Your task to perform on an android device: install app "Move to iOS" Image 0: 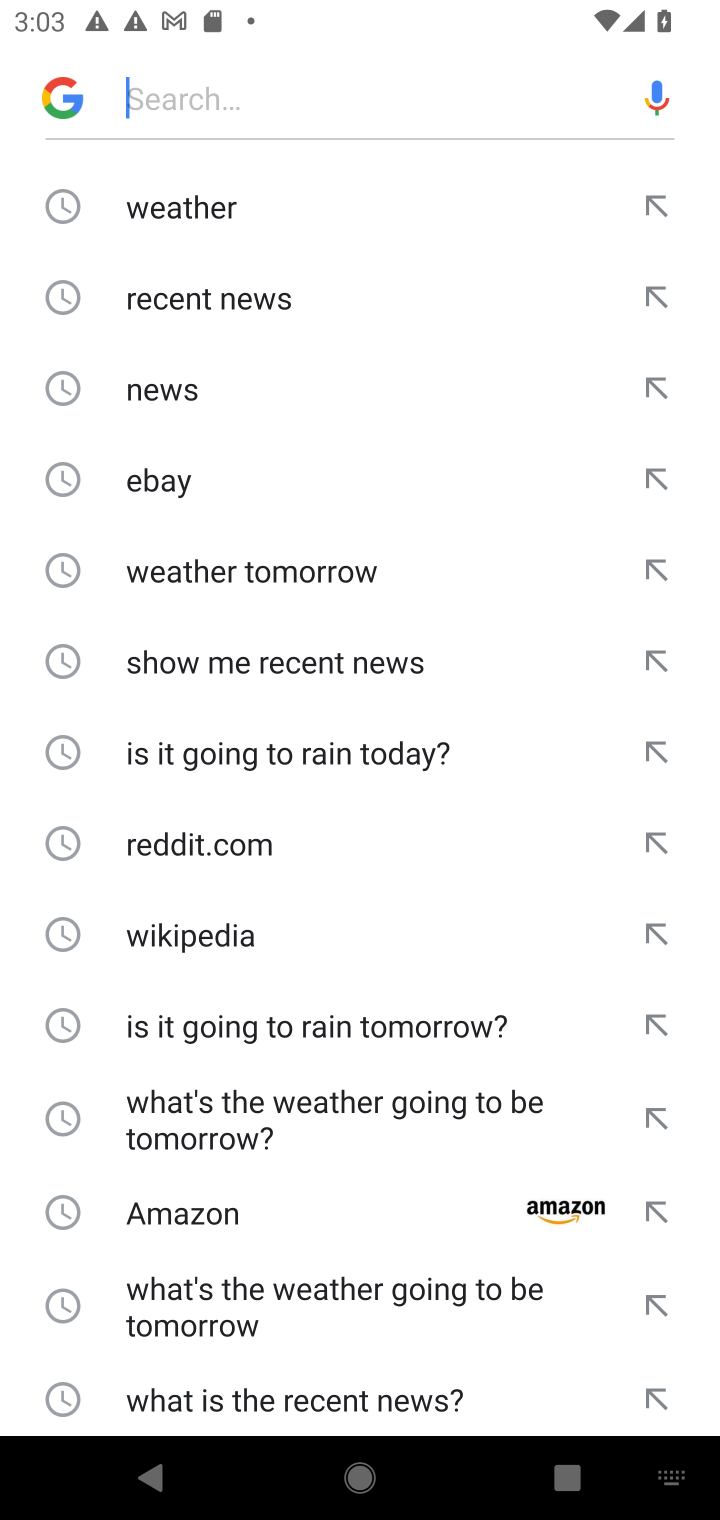
Step 0: press home button
Your task to perform on an android device: install app "Move to iOS" Image 1: 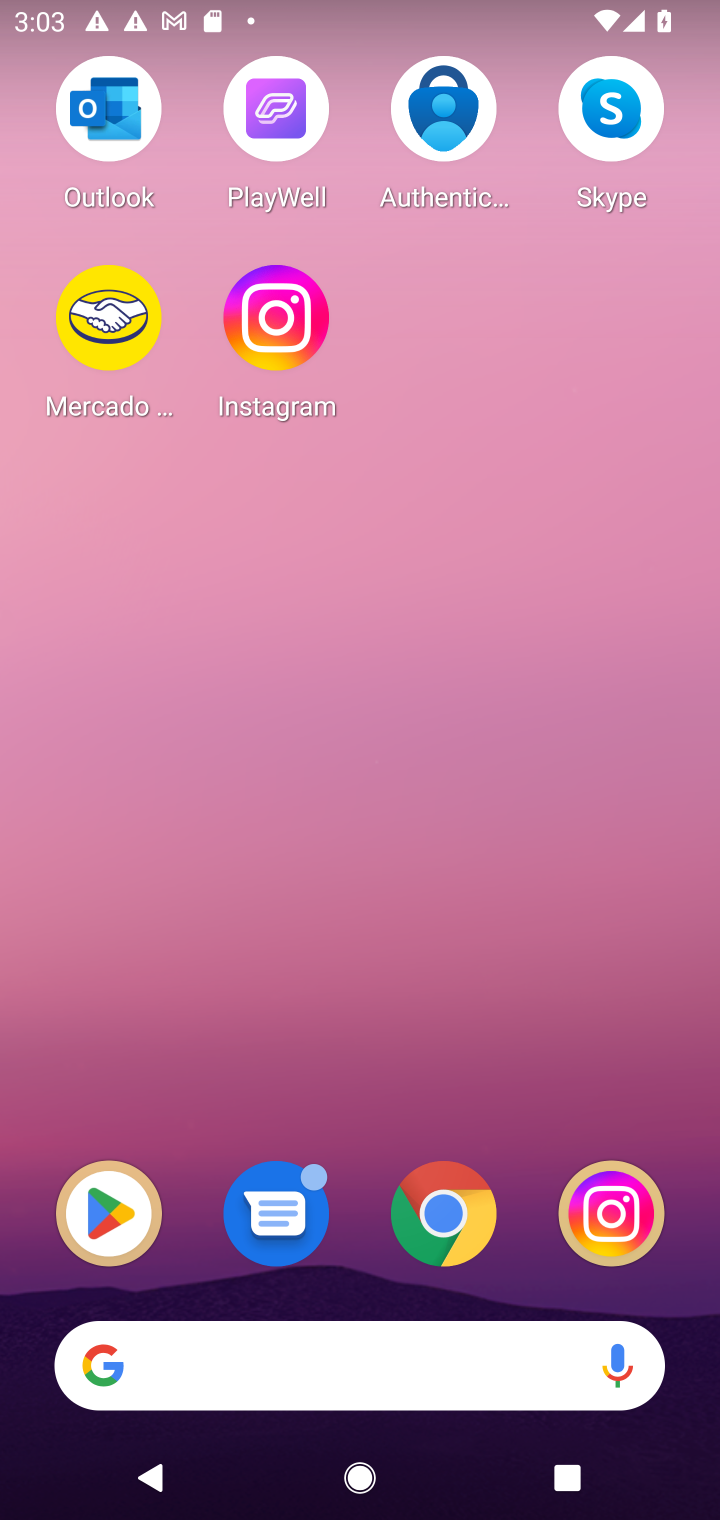
Step 1: drag from (557, 1086) to (635, 171)
Your task to perform on an android device: install app "Move to iOS" Image 2: 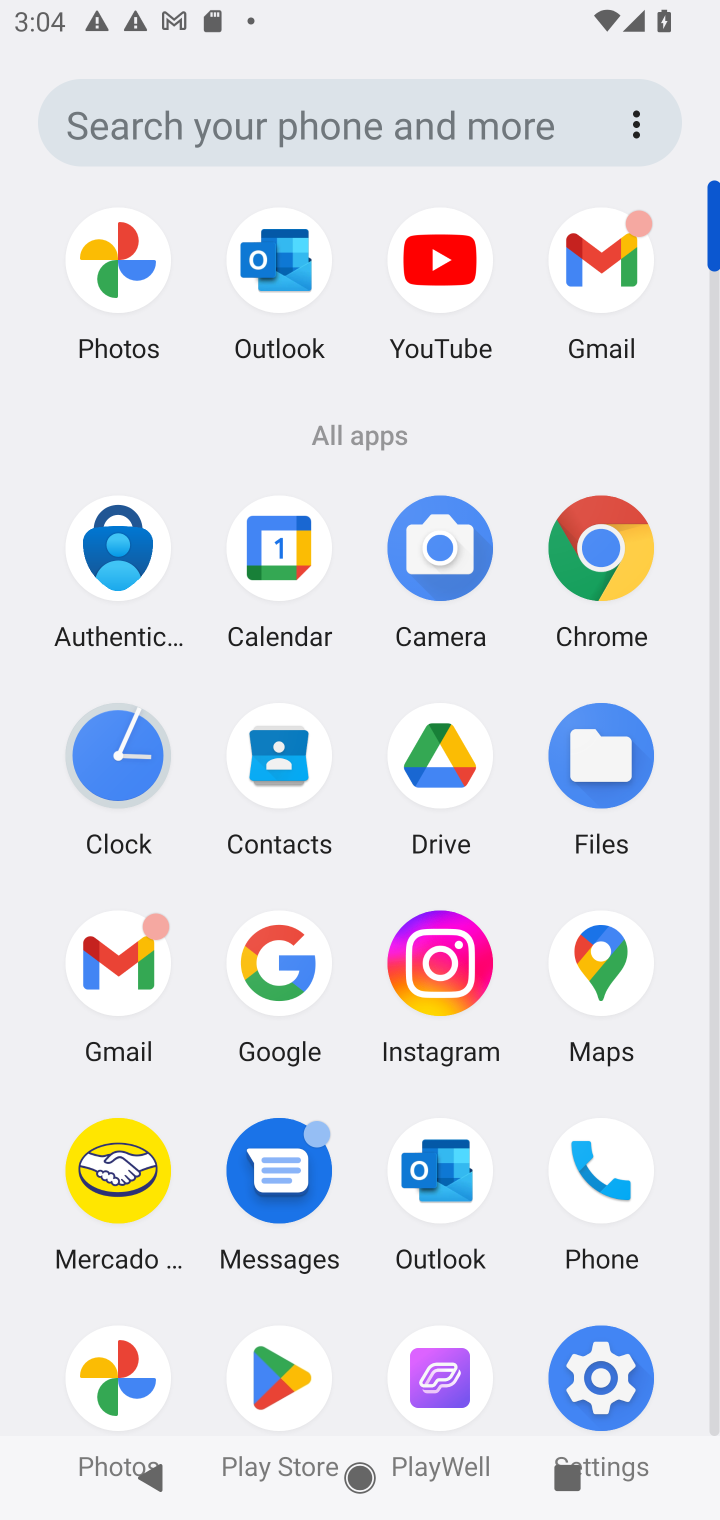
Step 2: click (289, 1365)
Your task to perform on an android device: install app "Move to iOS" Image 3: 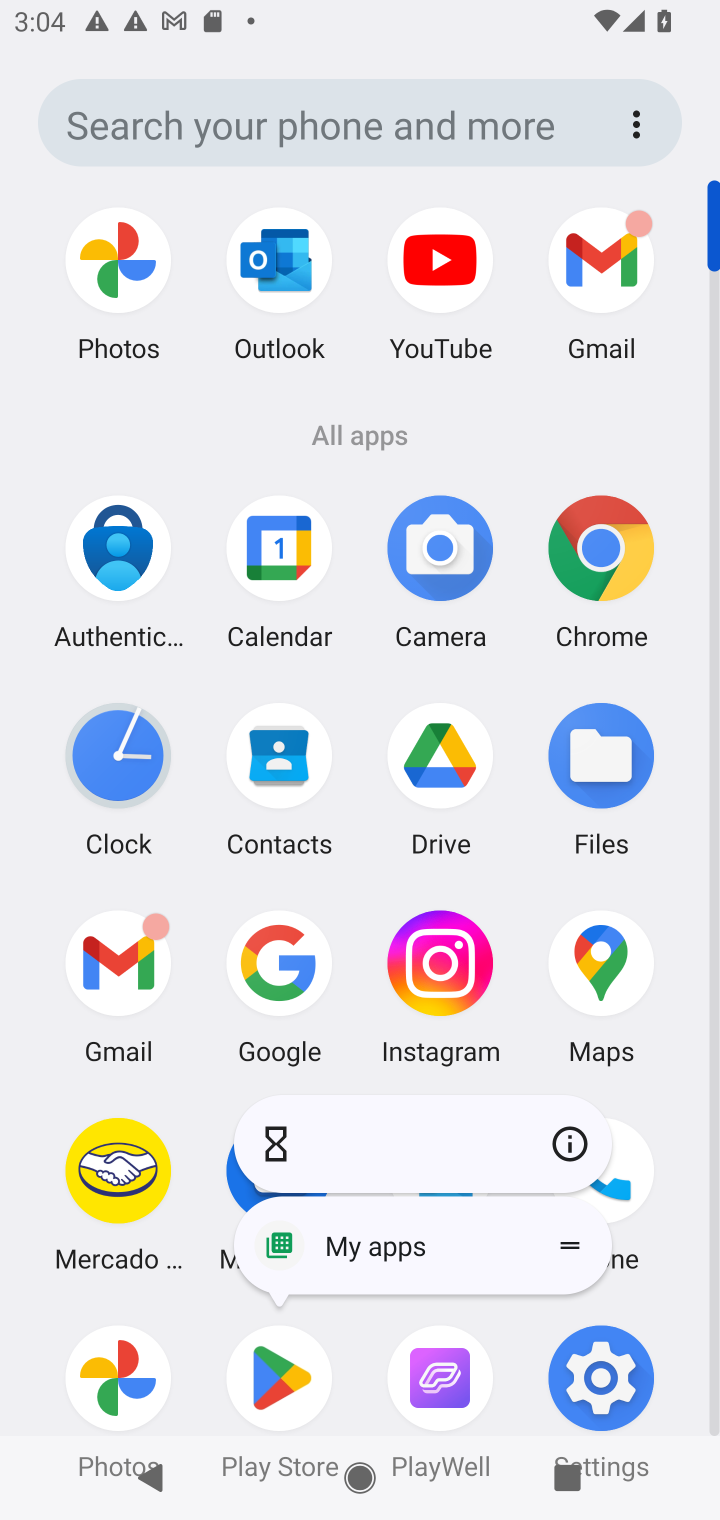
Step 3: click (258, 1389)
Your task to perform on an android device: install app "Move to iOS" Image 4: 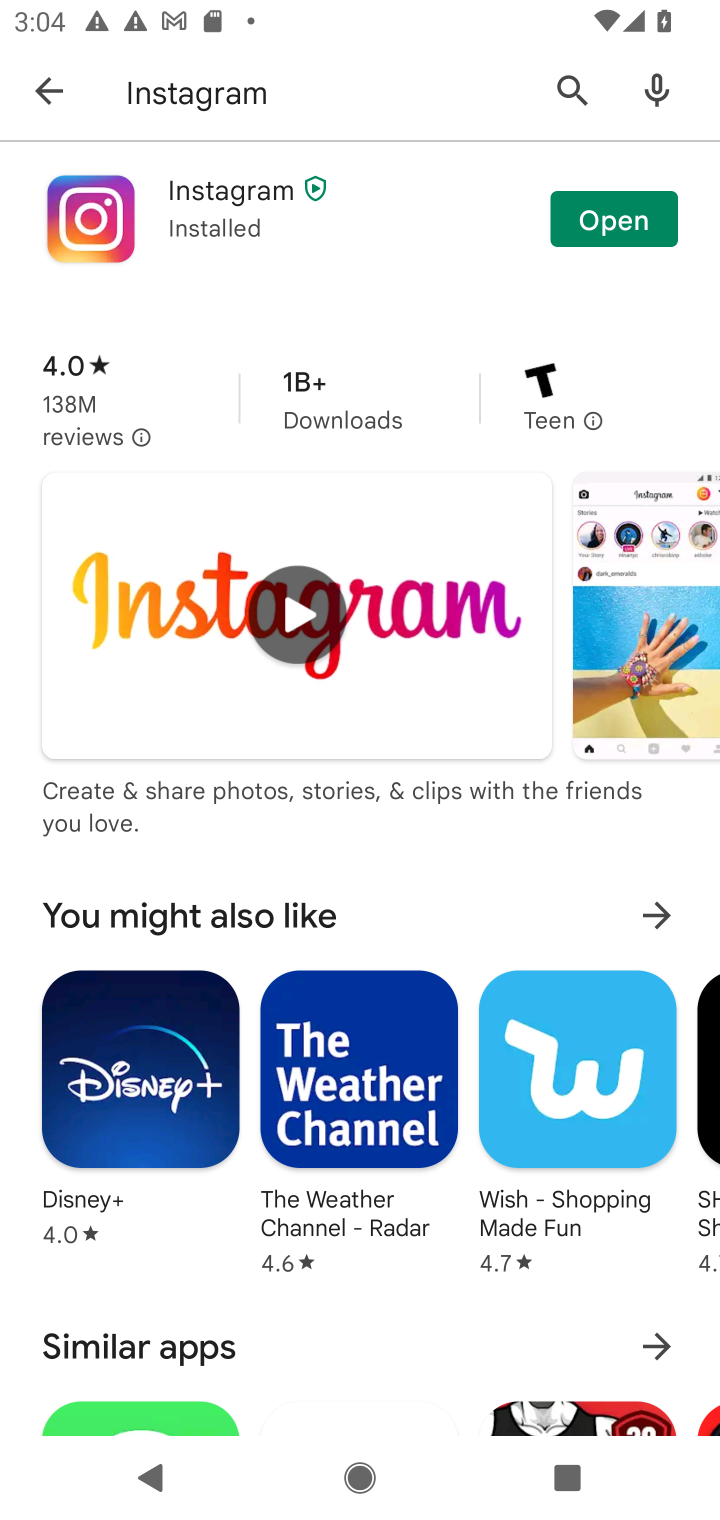
Step 4: click (400, 71)
Your task to perform on an android device: install app "Move to iOS" Image 5: 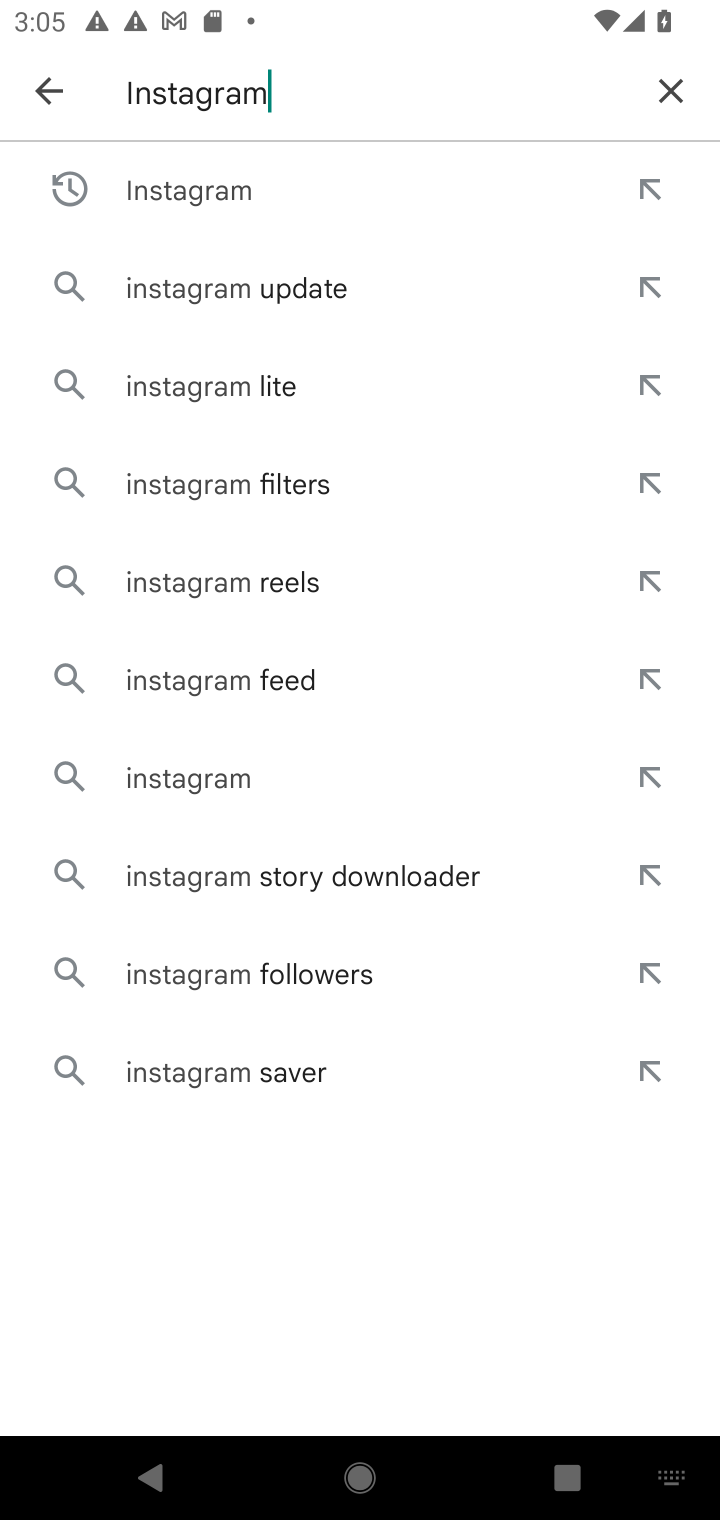
Step 5: click (670, 97)
Your task to perform on an android device: install app "Move to iOS" Image 6: 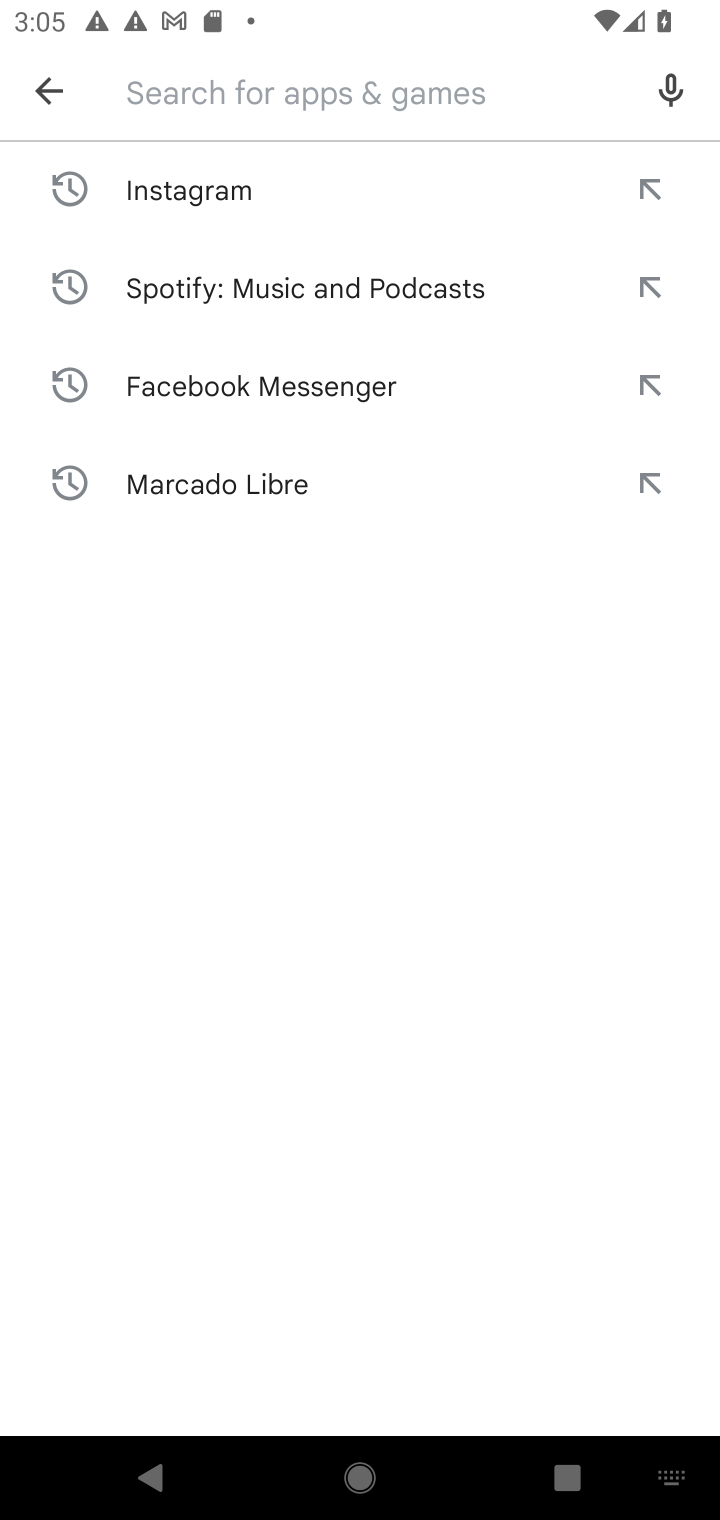
Step 6: type "Move to iOS"
Your task to perform on an android device: install app "Move to iOS" Image 7: 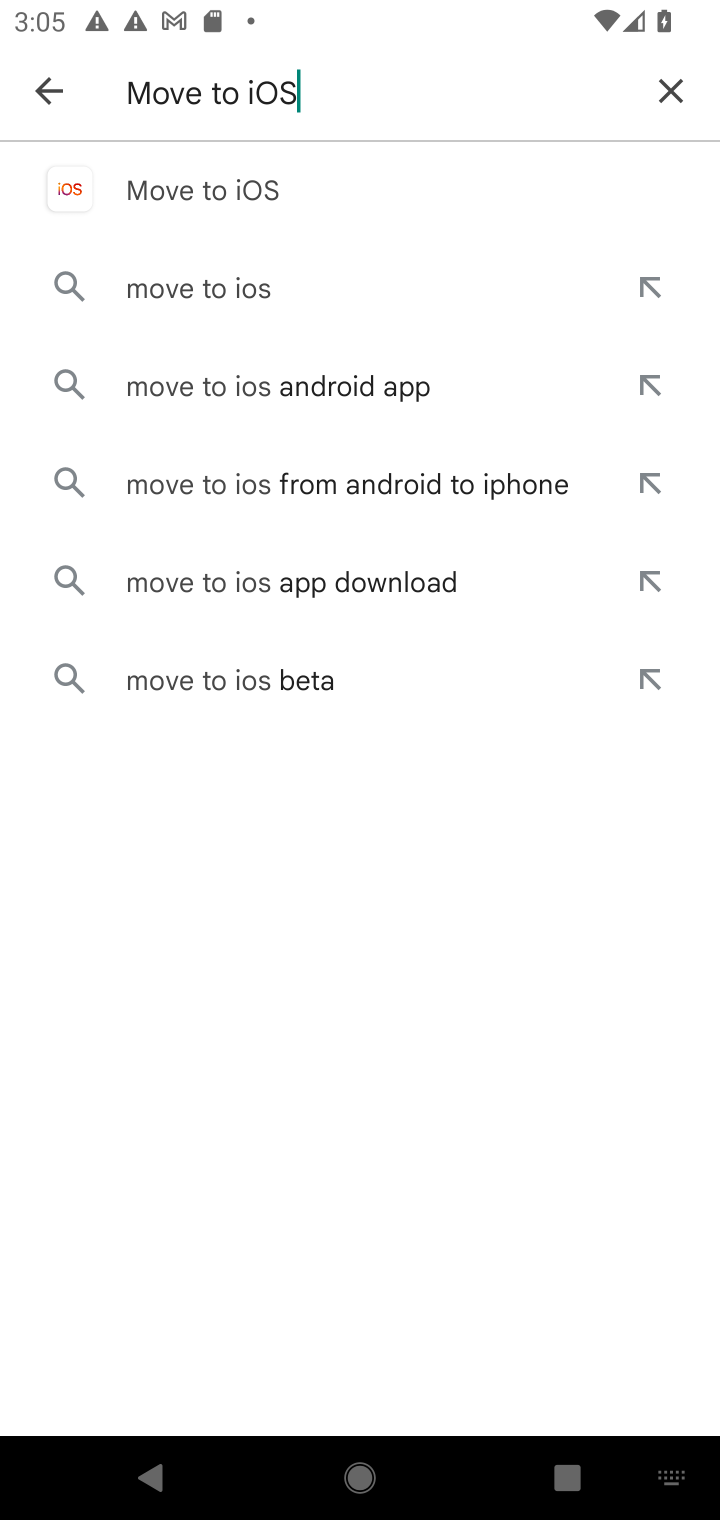
Step 7: press enter
Your task to perform on an android device: install app "Move to iOS" Image 8: 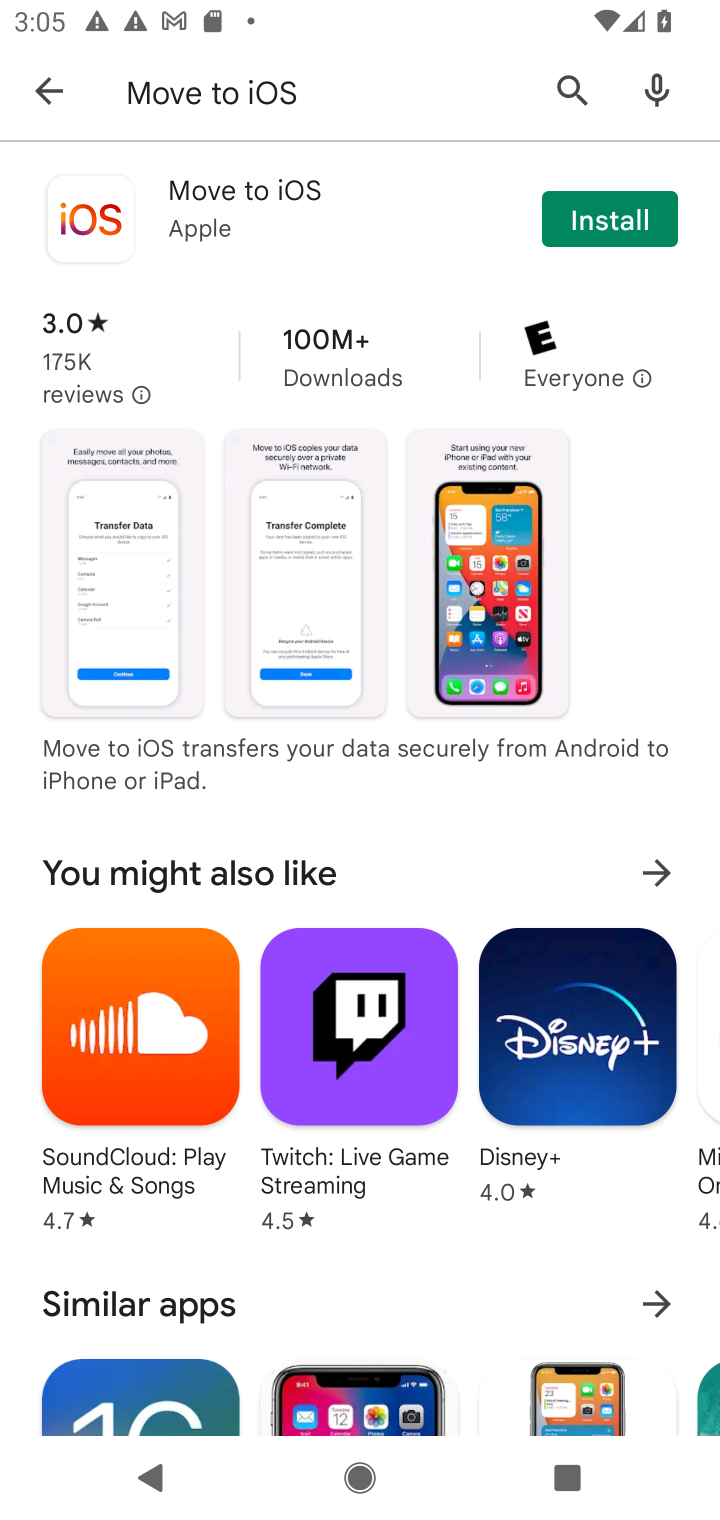
Step 8: click (623, 233)
Your task to perform on an android device: install app "Move to iOS" Image 9: 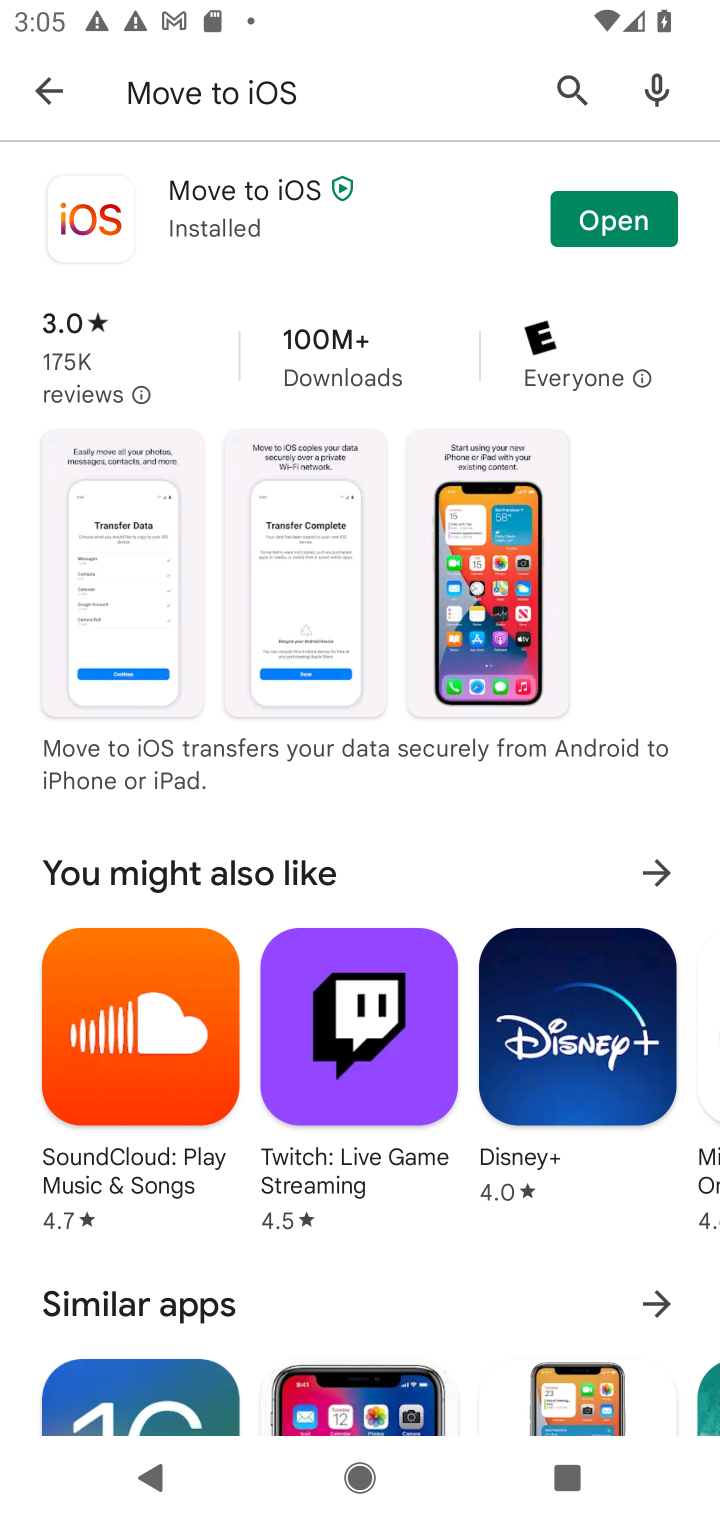
Step 9: task complete